Your task to perform on an android device: all mails in gmail Image 0: 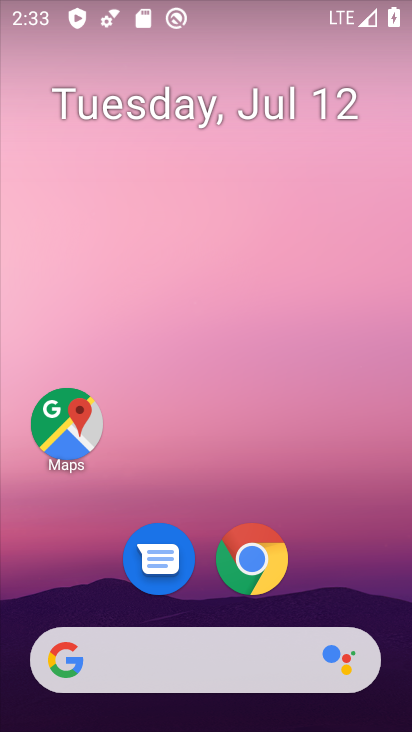
Step 0: drag from (354, 560) to (366, 178)
Your task to perform on an android device: all mails in gmail Image 1: 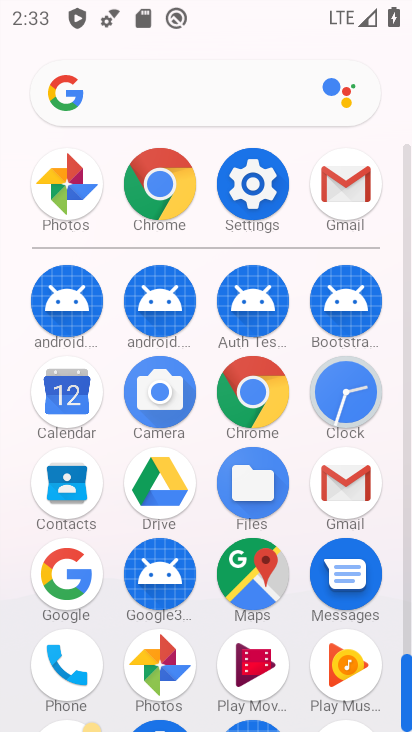
Step 1: click (350, 479)
Your task to perform on an android device: all mails in gmail Image 2: 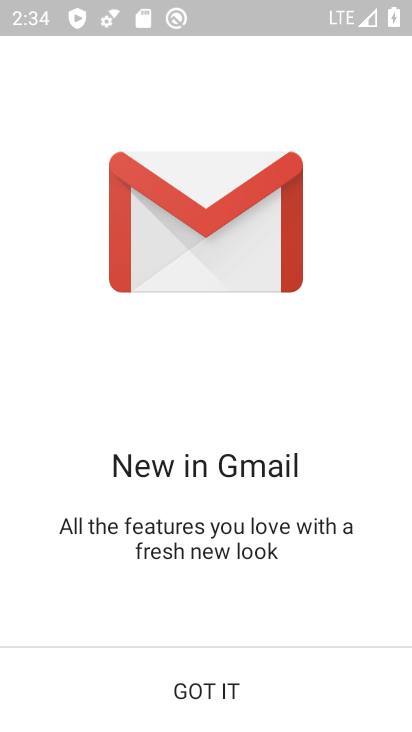
Step 2: click (296, 682)
Your task to perform on an android device: all mails in gmail Image 3: 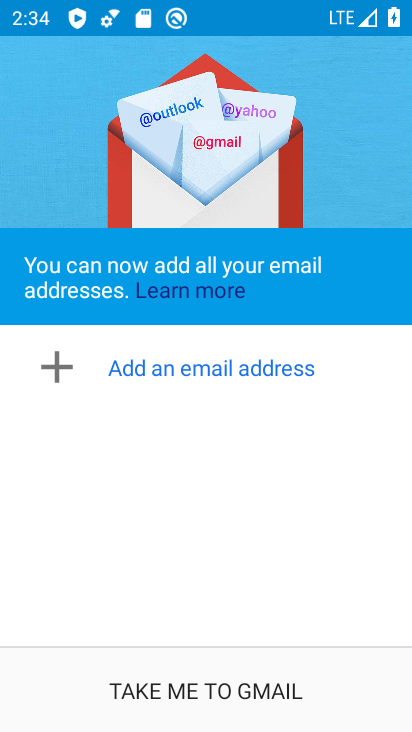
Step 3: click (284, 692)
Your task to perform on an android device: all mails in gmail Image 4: 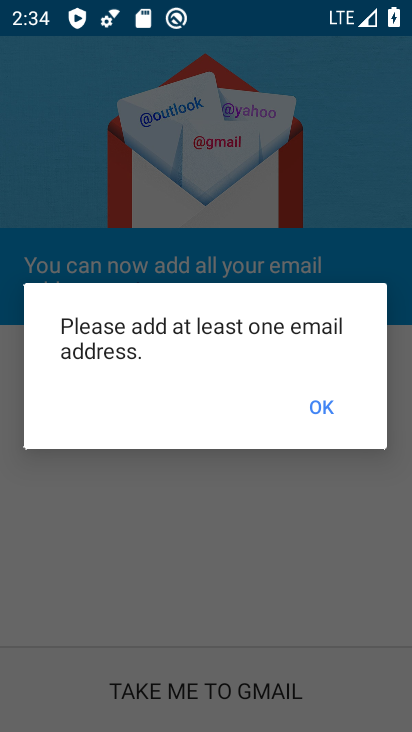
Step 4: task complete